Your task to perform on an android device: Search for seafood restaurants on Google Maps Image 0: 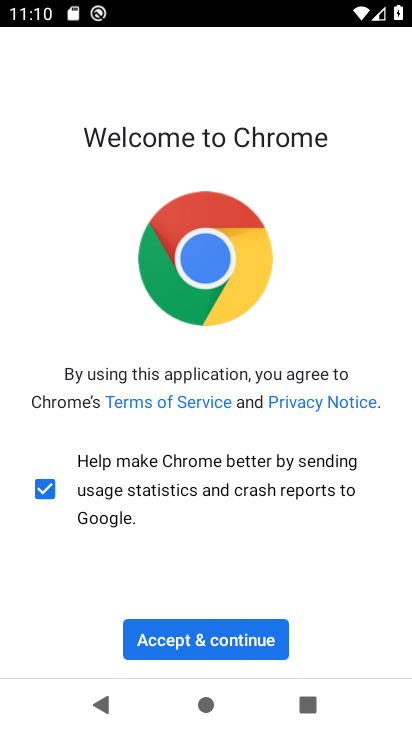
Step 0: press home button
Your task to perform on an android device: Search for seafood restaurants on Google Maps Image 1: 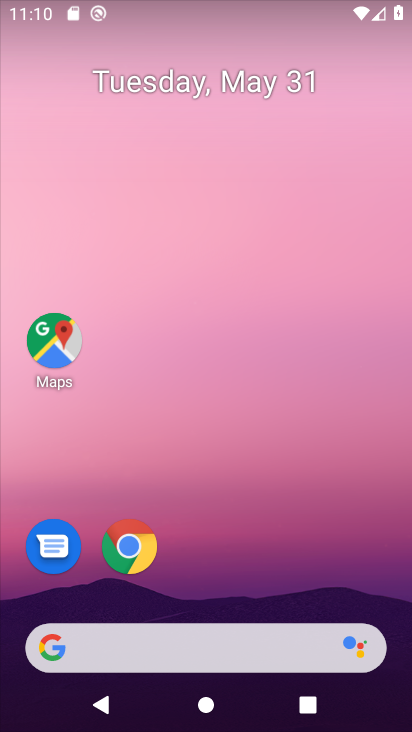
Step 1: click (48, 346)
Your task to perform on an android device: Search for seafood restaurants on Google Maps Image 2: 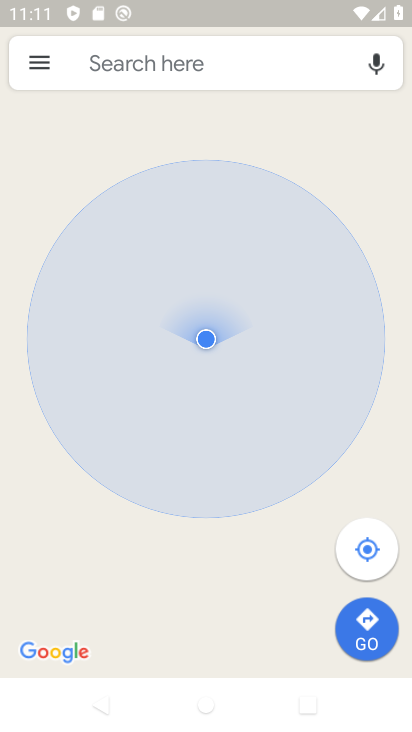
Step 2: click (175, 51)
Your task to perform on an android device: Search for seafood restaurants on Google Maps Image 3: 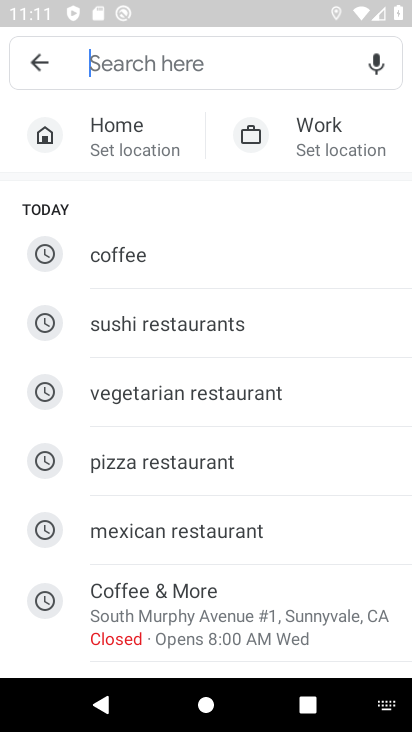
Step 3: type "seafood restaurants"
Your task to perform on an android device: Search for seafood restaurants on Google Maps Image 4: 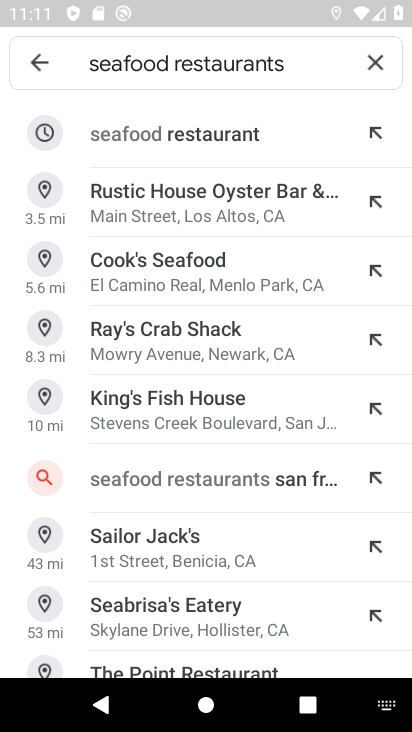
Step 4: click (222, 141)
Your task to perform on an android device: Search for seafood restaurants on Google Maps Image 5: 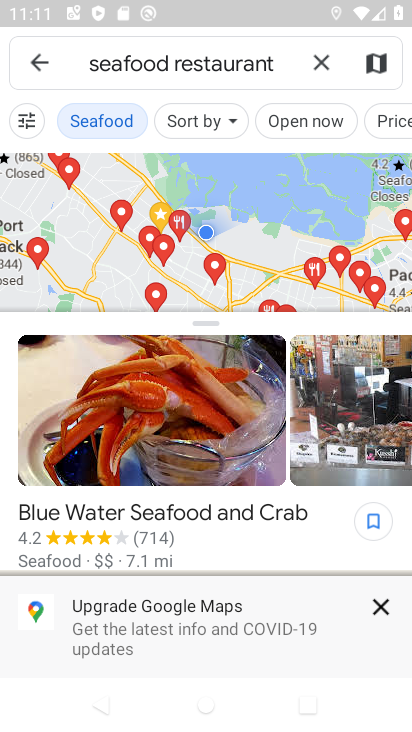
Step 5: task complete